Your task to perform on an android device: Turn on the flashlight Image 0: 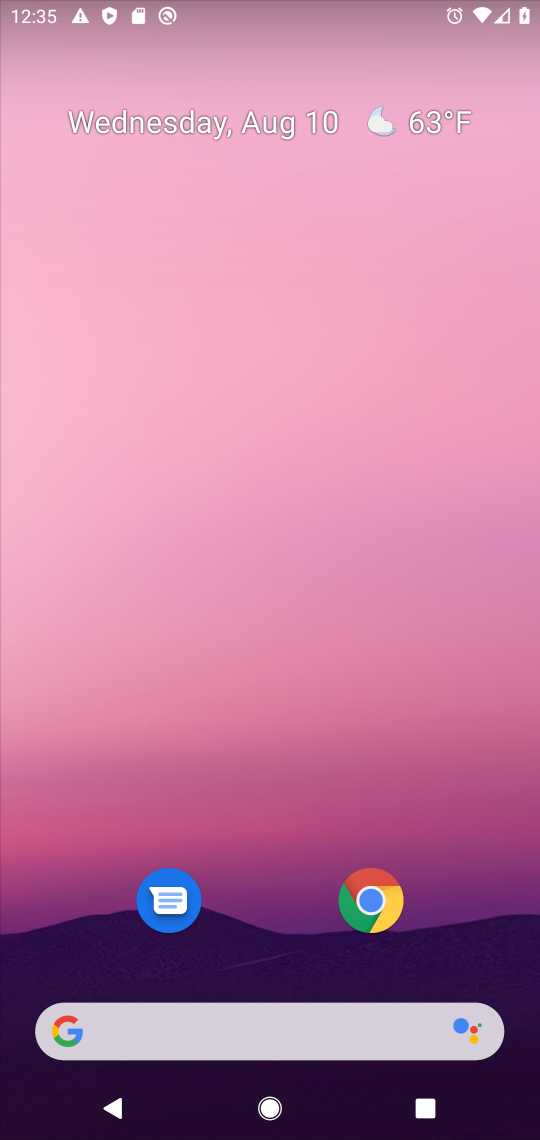
Step 0: drag from (302, 750) to (278, 34)
Your task to perform on an android device: Turn on the flashlight Image 1: 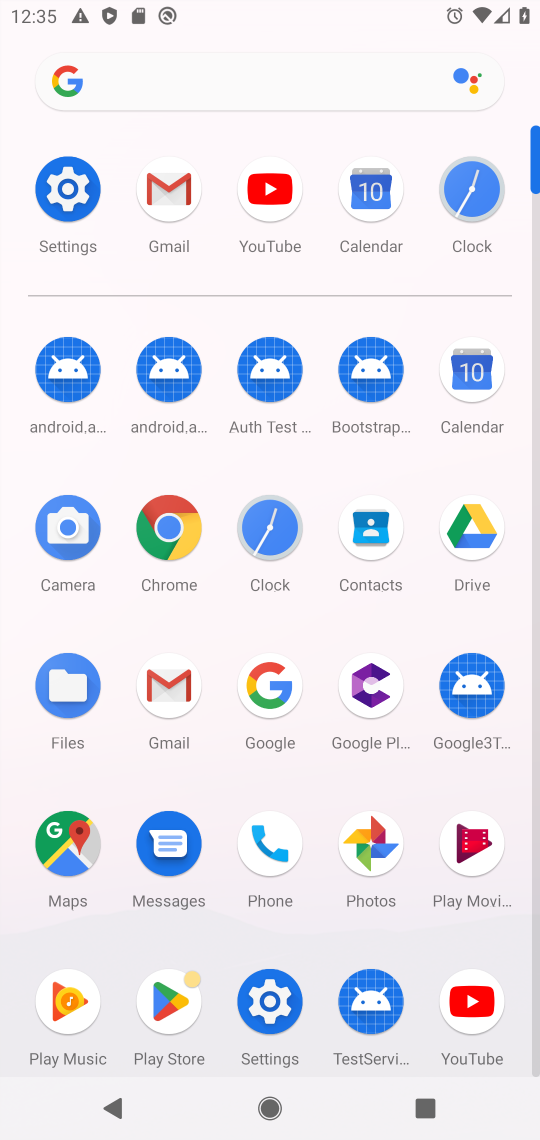
Step 1: click (68, 186)
Your task to perform on an android device: Turn on the flashlight Image 2: 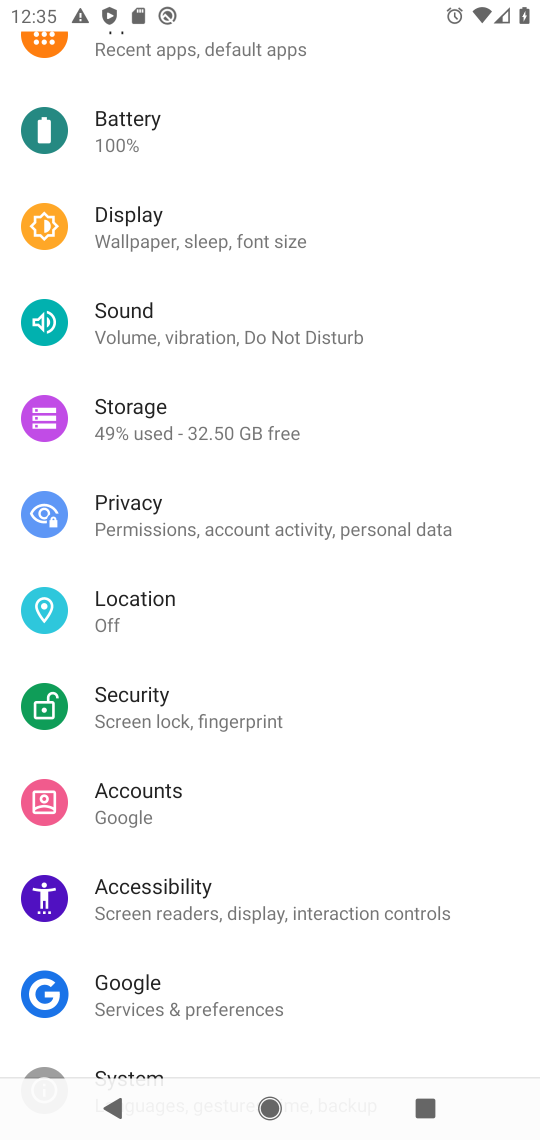
Step 2: drag from (295, 262) to (314, 961)
Your task to perform on an android device: Turn on the flashlight Image 3: 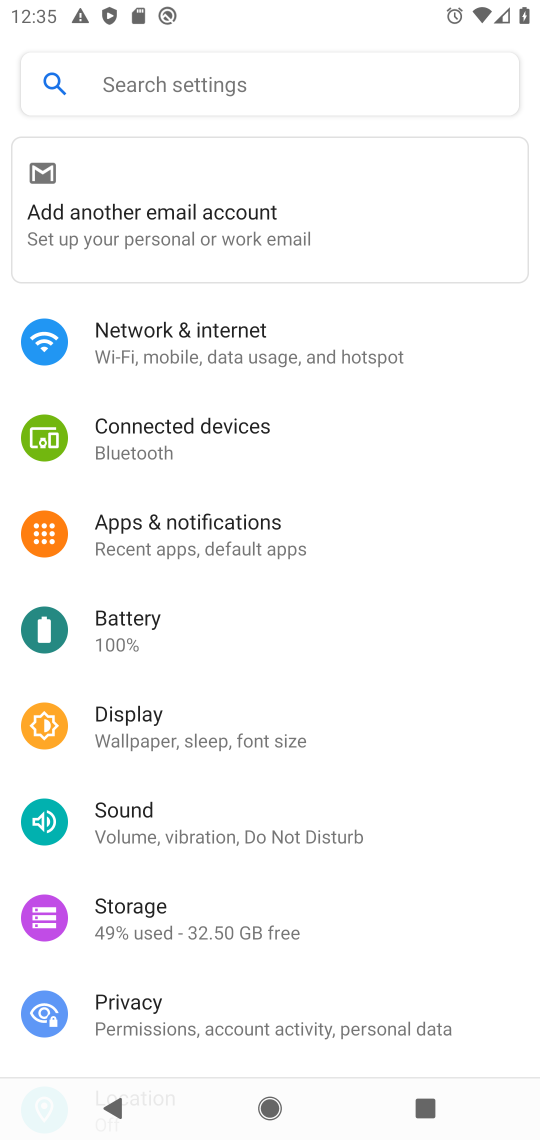
Step 3: click (309, 88)
Your task to perform on an android device: Turn on the flashlight Image 4: 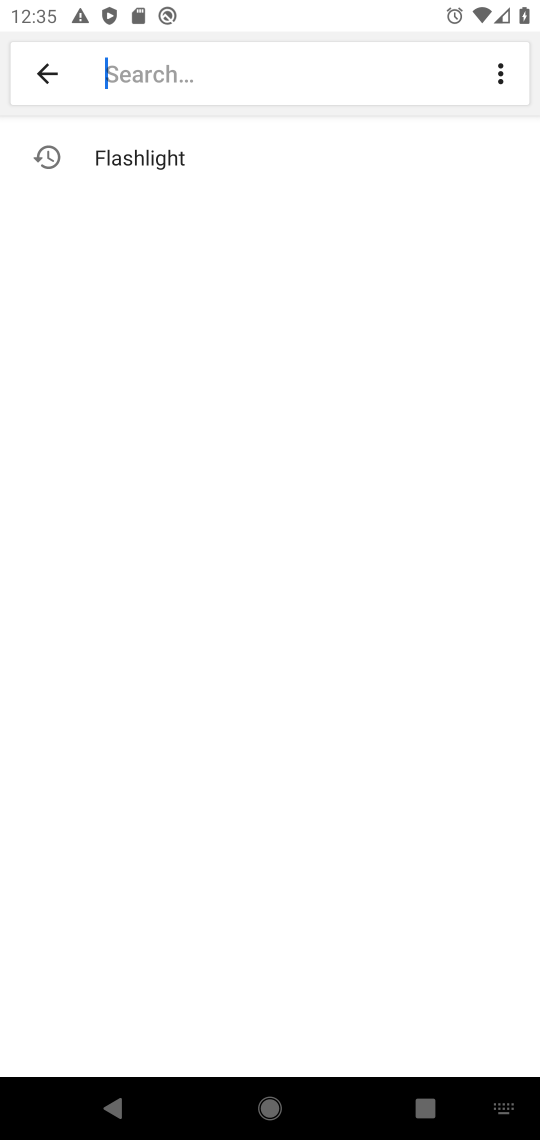
Step 4: click (171, 144)
Your task to perform on an android device: Turn on the flashlight Image 5: 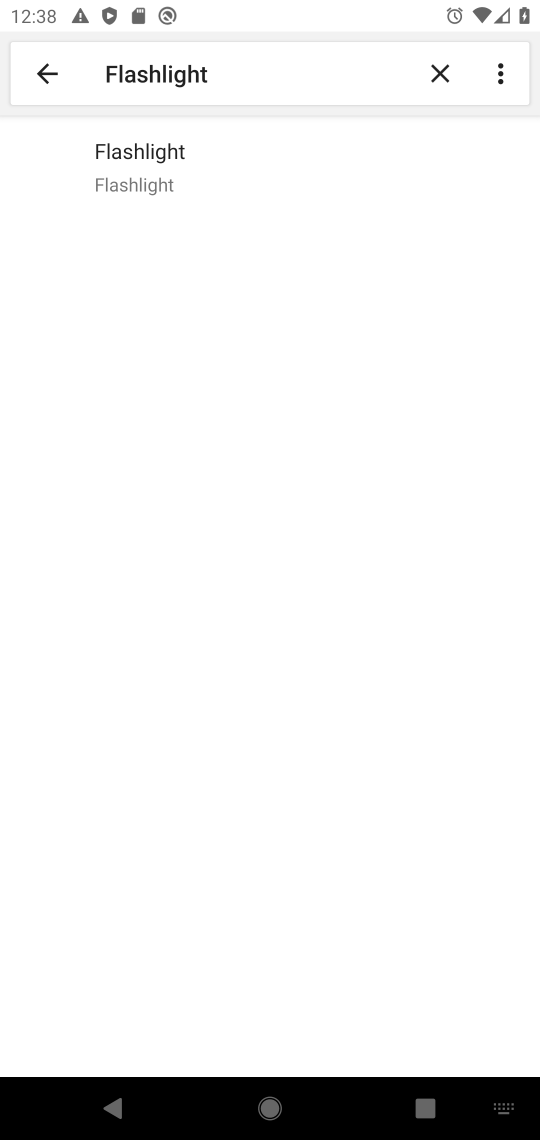
Step 5: task complete